Your task to perform on an android device: turn pop-ups on in chrome Image 0: 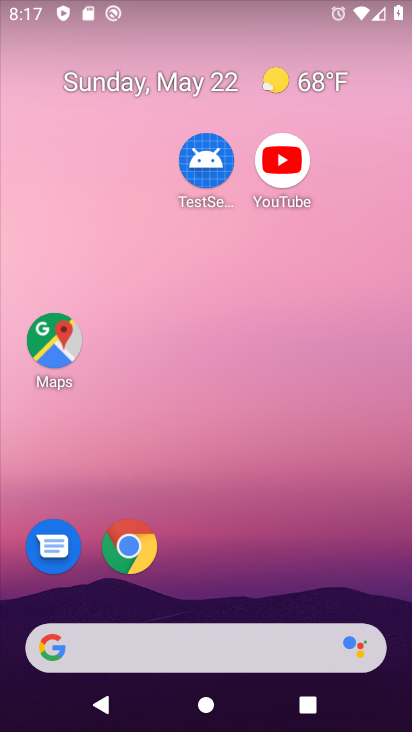
Step 0: drag from (267, 670) to (228, 16)
Your task to perform on an android device: turn pop-ups on in chrome Image 1: 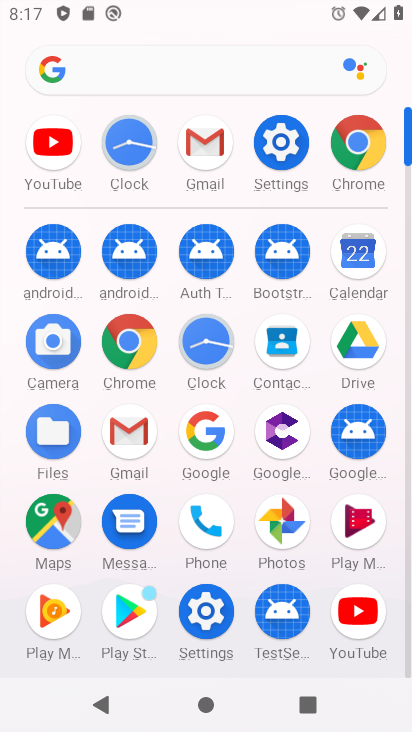
Step 1: drag from (249, 447) to (241, 14)
Your task to perform on an android device: turn pop-ups on in chrome Image 2: 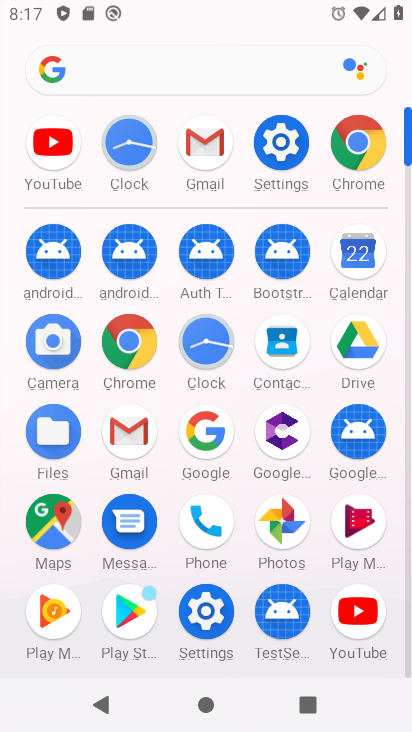
Step 2: drag from (276, 462) to (272, 103)
Your task to perform on an android device: turn pop-ups on in chrome Image 3: 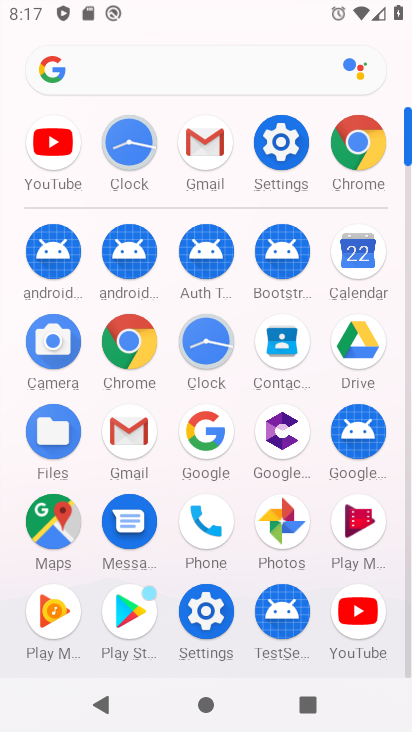
Step 3: drag from (273, 699) to (263, 182)
Your task to perform on an android device: turn pop-ups on in chrome Image 4: 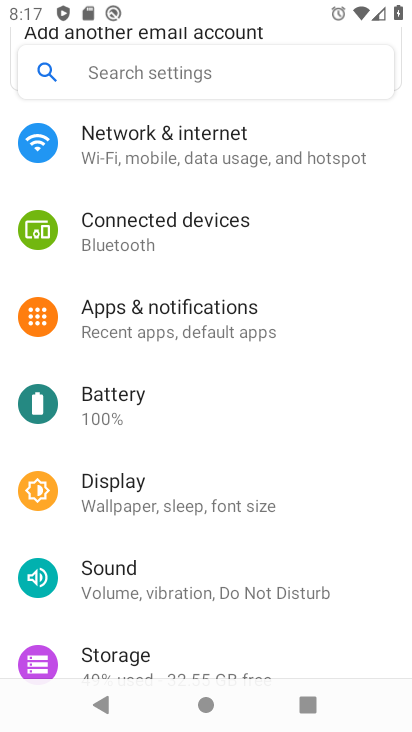
Step 4: drag from (350, 139) to (350, 96)
Your task to perform on an android device: turn pop-ups on in chrome Image 5: 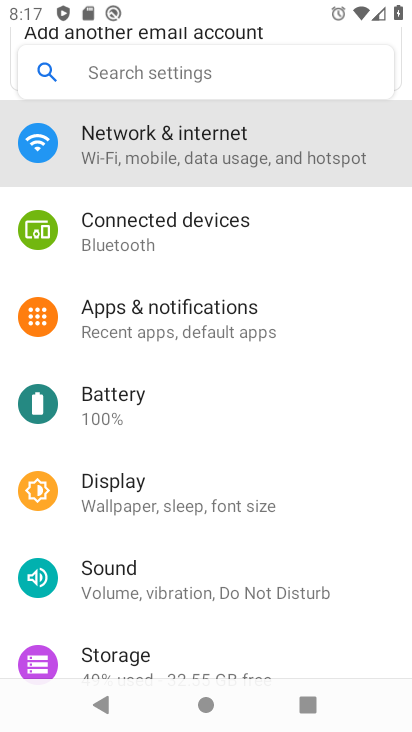
Step 5: drag from (208, 154) to (189, 105)
Your task to perform on an android device: turn pop-ups on in chrome Image 6: 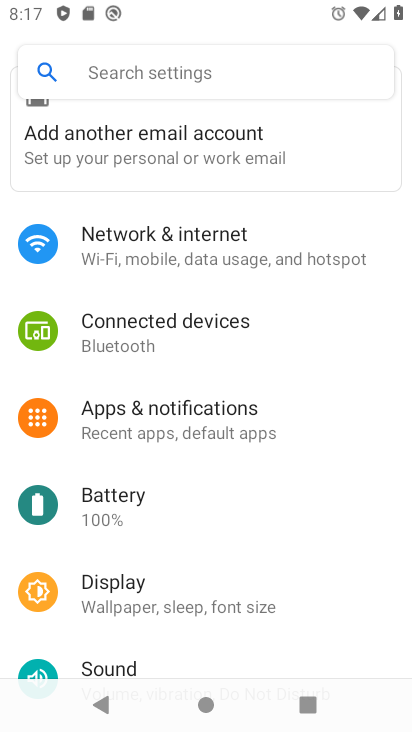
Step 6: drag from (270, 666) to (242, 105)
Your task to perform on an android device: turn pop-ups on in chrome Image 7: 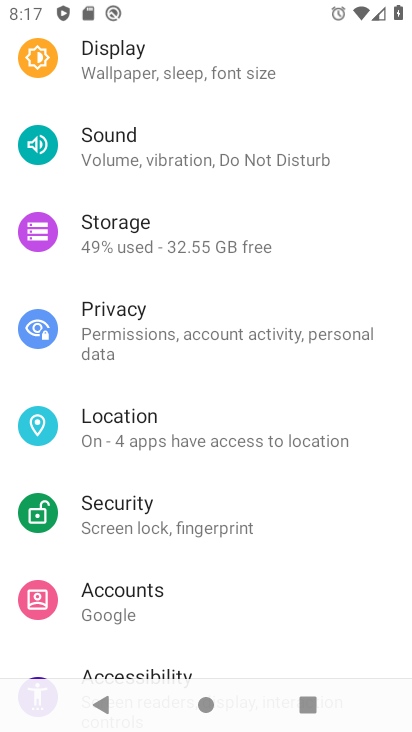
Step 7: press back button
Your task to perform on an android device: turn pop-ups on in chrome Image 8: 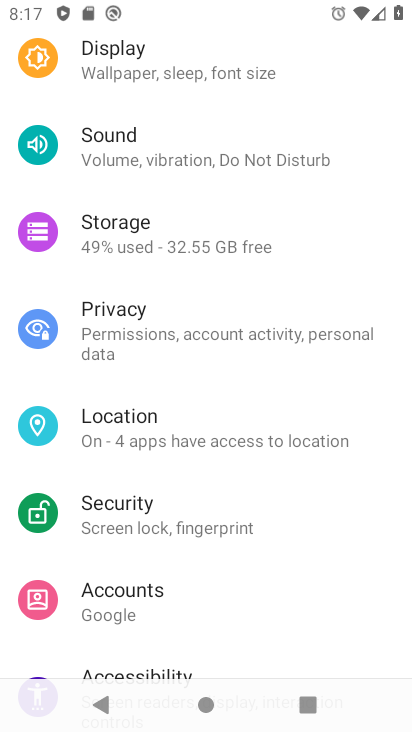
Step 8: press back button
Your task to perform on an android device: turn pop-ups on in chrome Image 9: 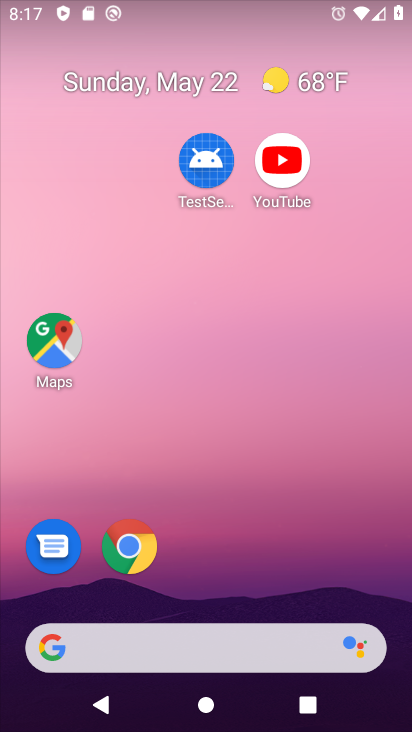
Step 9: drag from (199, 550) to (116, 65)
Your task to perform on an android device: turn pop-ups on in chrome Image 10: 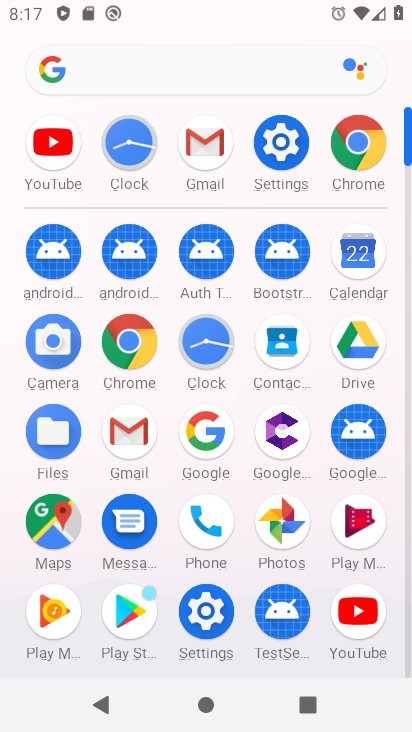
Step 10: click (367, 158)
Your task to perform on an android device: turn pop-ups on in chrome Image 11: 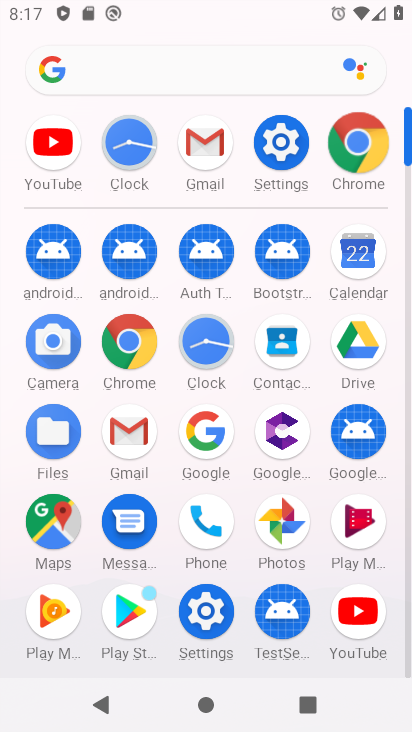
Step 11: click (367, 158)
Your task to perform on an android device: turn pop-ups on in chrome Image 12: 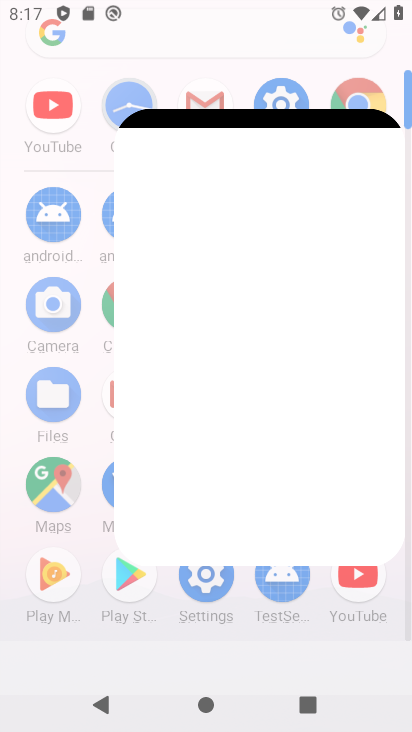
Step 12: click (367, 158)
Your task to perform on an android device: turn pop-ups on in chrome Image 13: 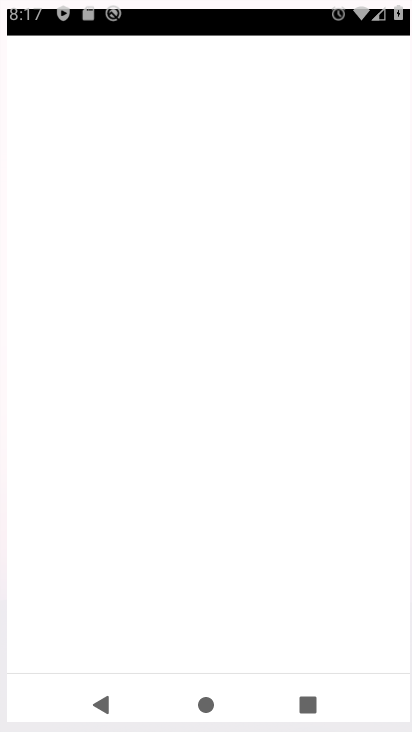
Step 13: click (366, 158)
Your task to perform on an android device: turn pop-ups on in chrome Image 14: 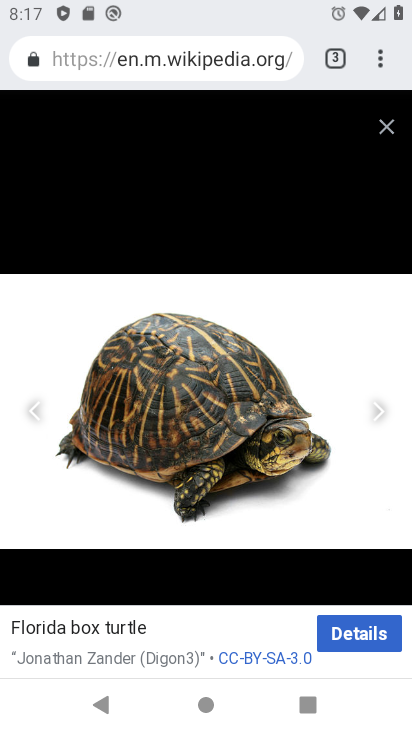
Step 14: drag from (378, 47) to (186, 571)
Your task to perform on an android device: turn pop-ups on in chrome Image 15: 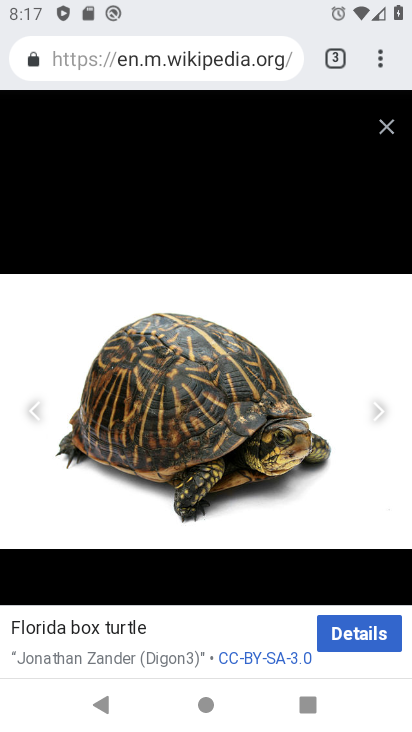
Step 15: click (243, 521)
Your task to perform on an android device: turn pop-ups on in chrome Image 16: 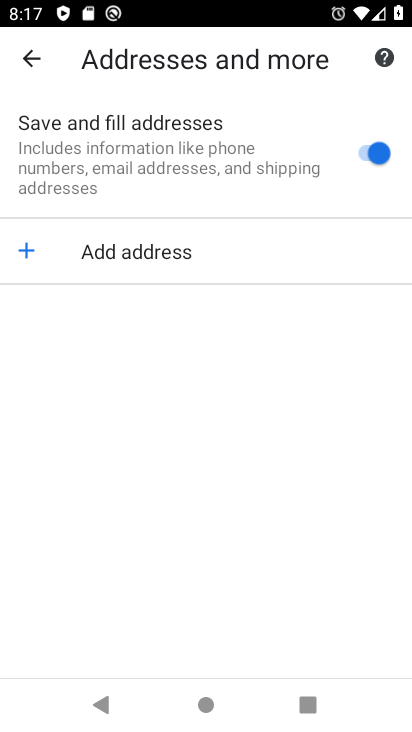
Step 16: click (16, 55)
Your task to perform on an android device: turn pop-ups on in chrome Image 17: 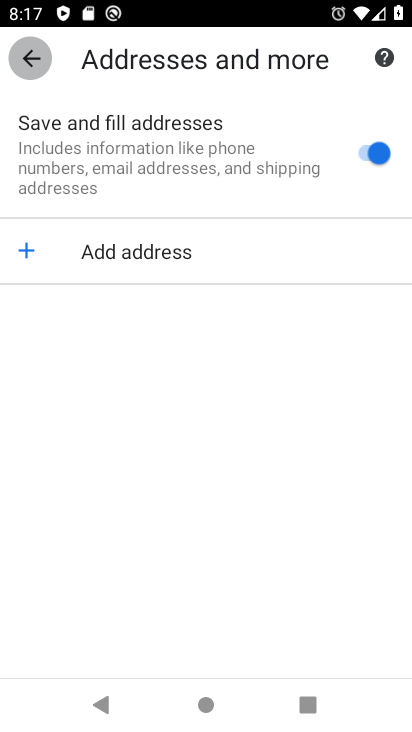
Step 17: click (19, 49)
Your task to perform on an android device: turn pop-ups on in chrome Image 18: 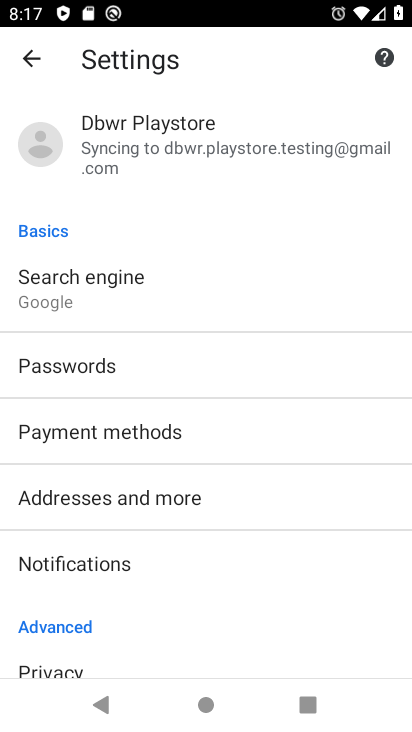
Step 18: drag from (117, 541) to (88, 81)
Your task to perform on an android device: turn pop-ups on in chrome Image 19: 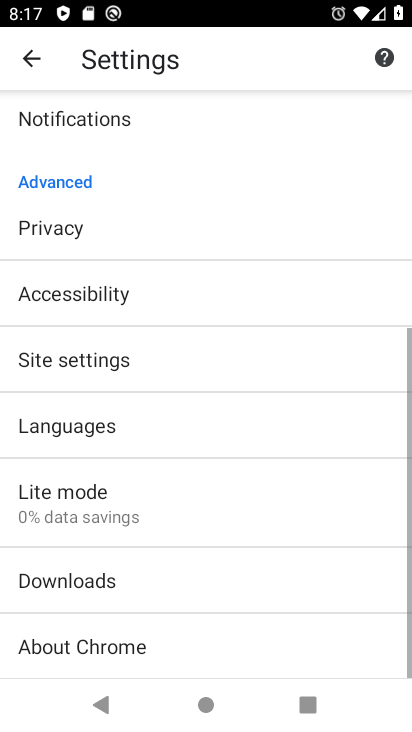
Step 19: drag from (133, 473) to (136, 143)
Your task to perform on an android device: turn pop-ups on in chrome Image 20: 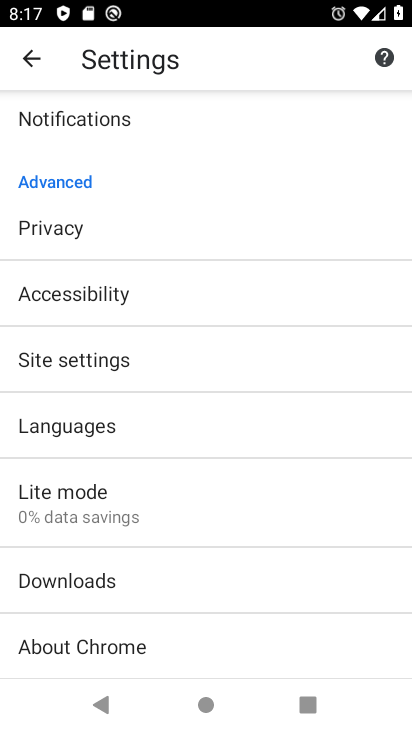
Step 20: click (66, 498)
Your task to perform on an android device: turn pop-ups on in chrome Image 21: 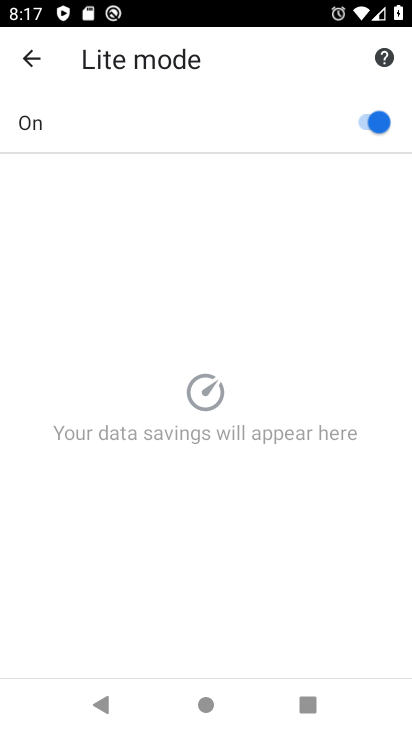
Step 21: click (23, 54)
Your task to perform on an android device: turn pop-ups on in chrome Image 22: 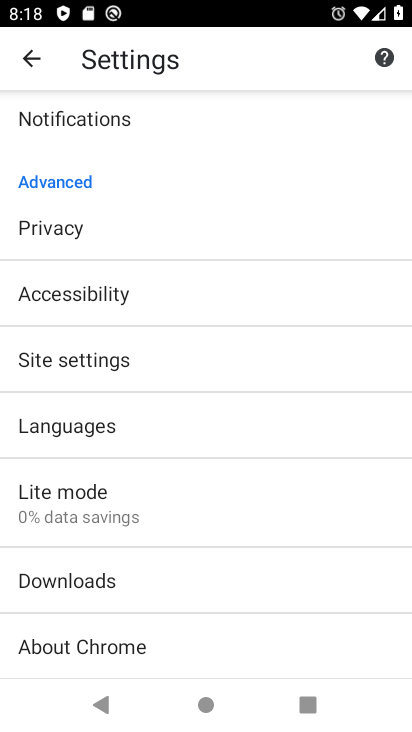
Step 22: click (41, 353)
Your task to perform on an android device: turn pop-ups on in chrome Image 23: 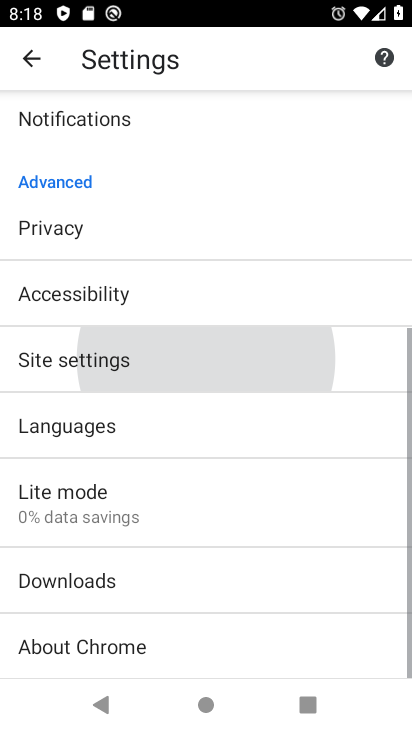
Step 23: click (41, 353)
Your task to perform on an android device: turn pop-ups on in chrome Image 24: 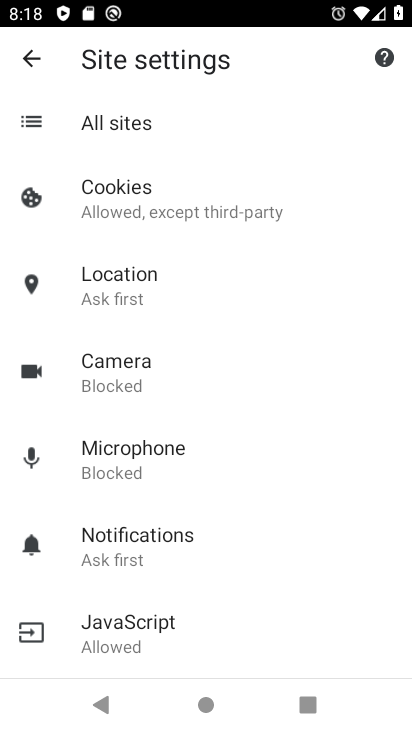
Step 24: drag from (100, 412) to (195, 5)
Your task to perform on an android device: turn pop-ups on in chrome Image 25: 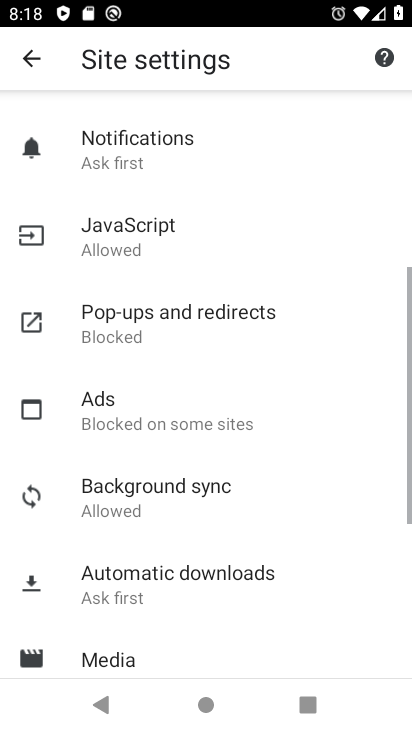
Step 25: drag from (192, 413) to (221, 20)
Your task to perform on an android device: turn pop-ups on in chrome Image 26: 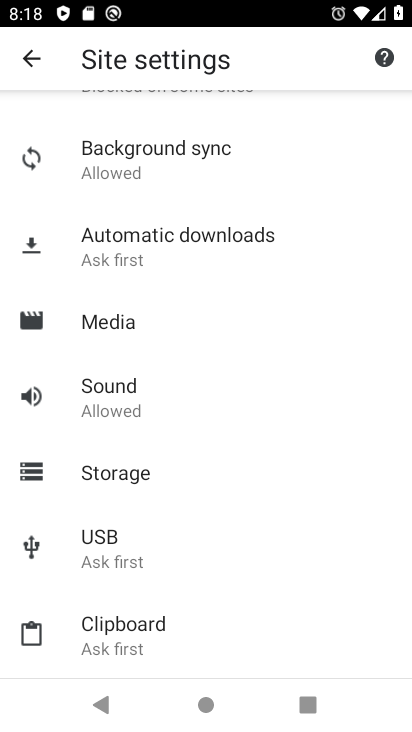
Step 26: drag from (130, 305) to (179, 494)
Your task to perform on an android device: turn pop-ups on in chrome Image 27: 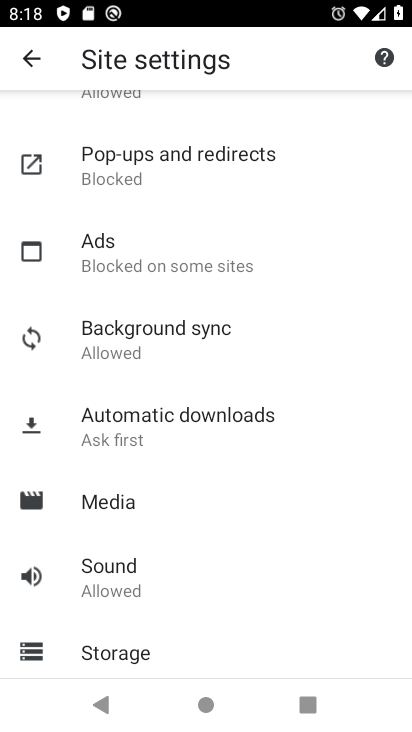
Step 27: click (111, 168)
Your task to perform on an android device: turn pop-ups on in chrome Image 28: 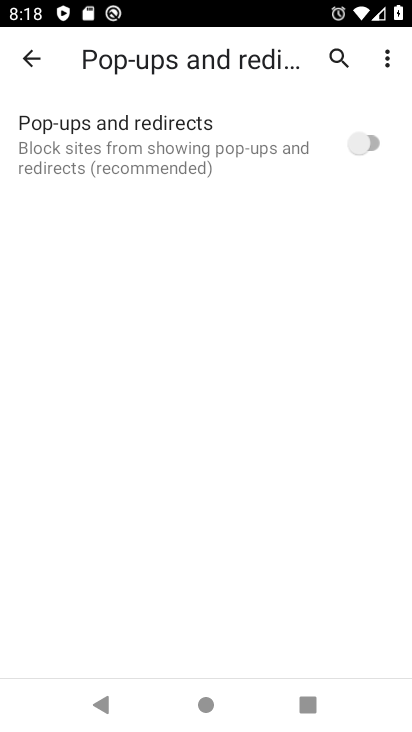
Step 28: click (349, 140)
Your task to perform on an android device: turn pop-ups on in chrome Image 29: 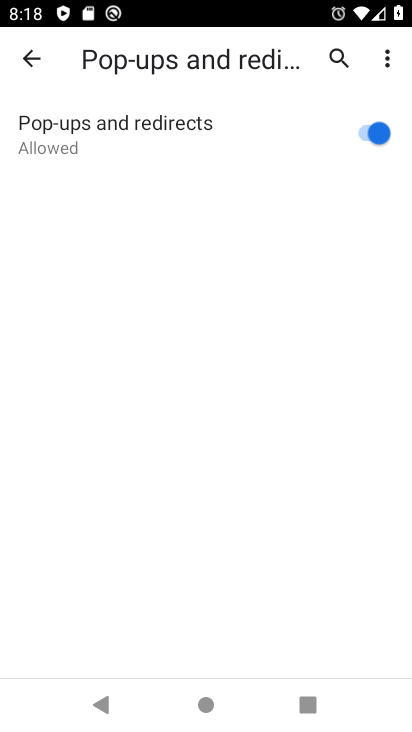
Step 29: task complete